Your task to perform on an android device: open wifi settings Image 0: 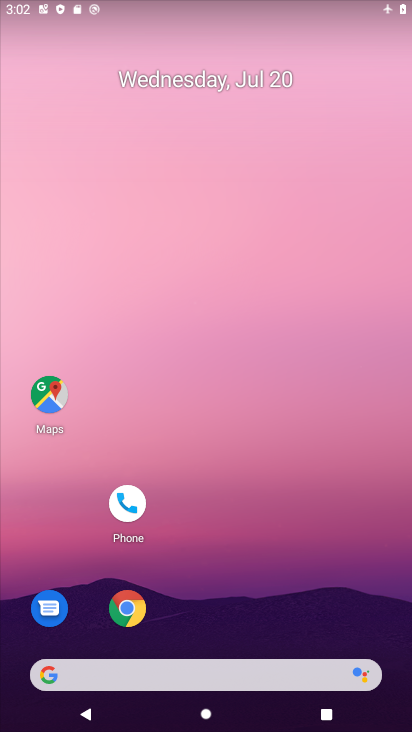
Step 0: drag from (280, 579) to (256, 70)
Your task to perform on an android device: open wifi settings Image 1: 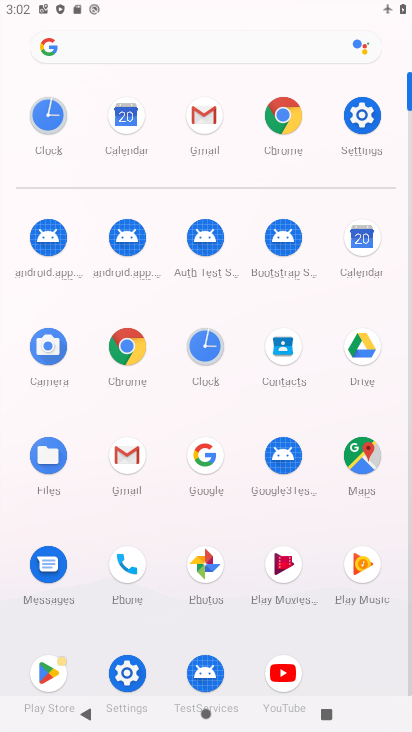
Step 1: click (362, 118)
Your task to perform on an android device: open wifi settings Image 2: 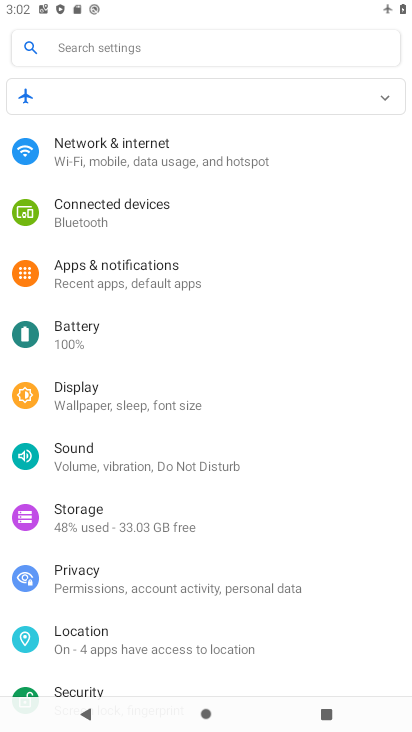
Step 2: click (180, 163)
Your task to perform on an android device: open wifi settings Image 3: 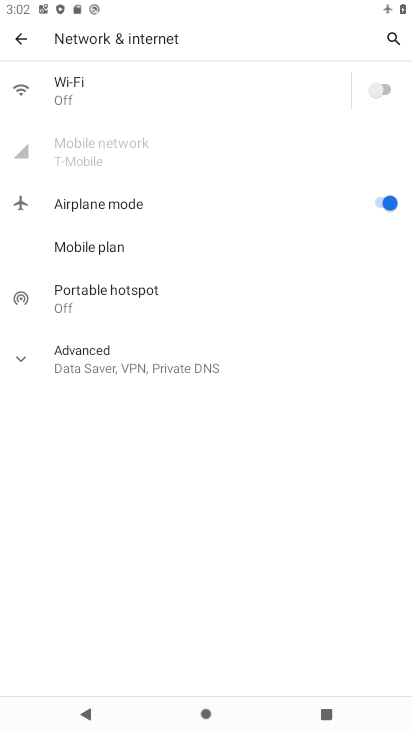
Step 3: click (159, 88)
Your task to perform on an android device: open wifi settings Image 4: 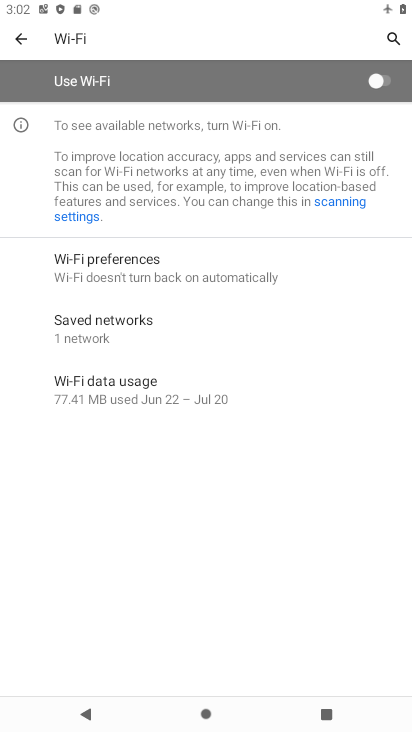
Step 4: click (381, 83)
Your task to perform on an android device: open wifi settings Image 5: 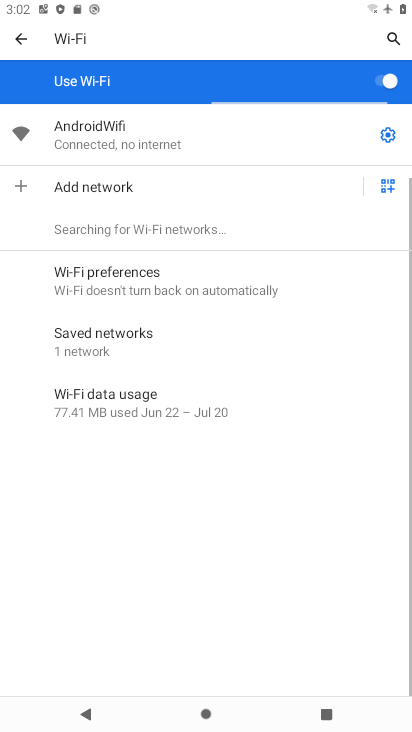
Step 5: click (388, 134)
Your task to perform on an android device: open wifi settings Image 6: 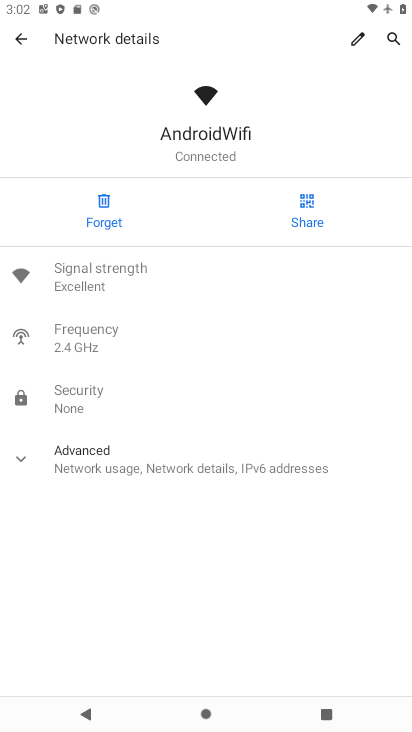
Step 6: task complete